Your task to perform on an android device: When is my next appointment? Image 0: 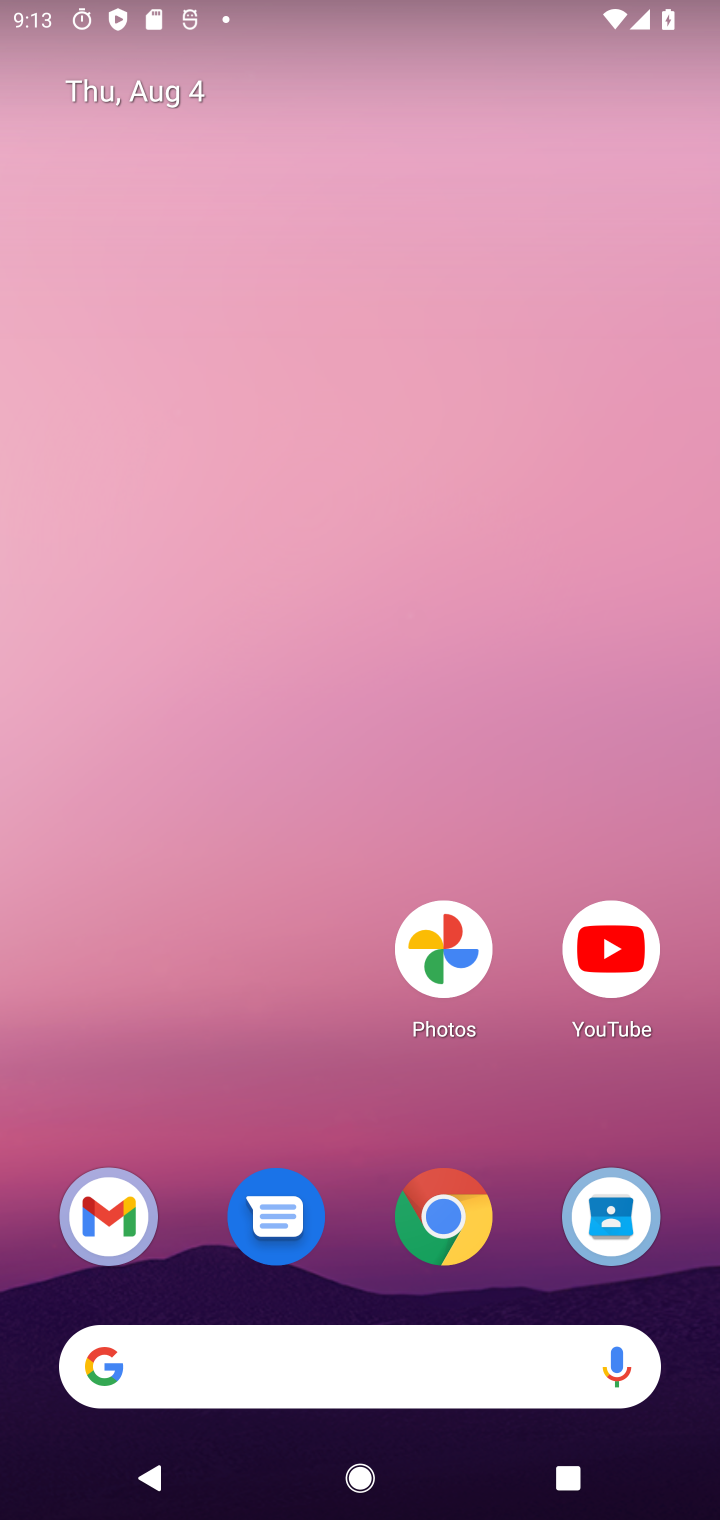
Step 0: drag from (341, 910) to (341, 288)
Your task to perform on an android device: When is my next appointment? Image 1: 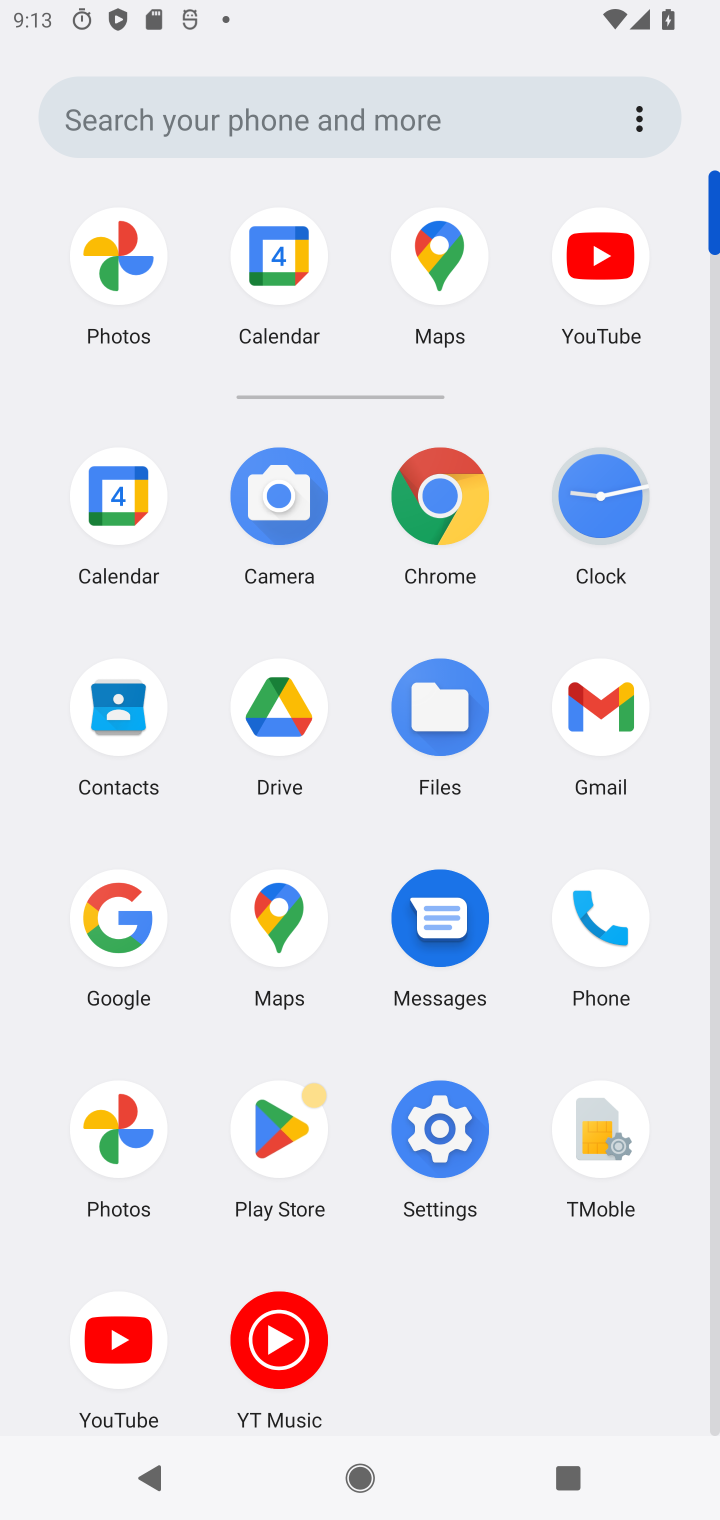
Step 1: click (123, 505)
Your task to perform on an android device: When is my next appointment? Image 2: 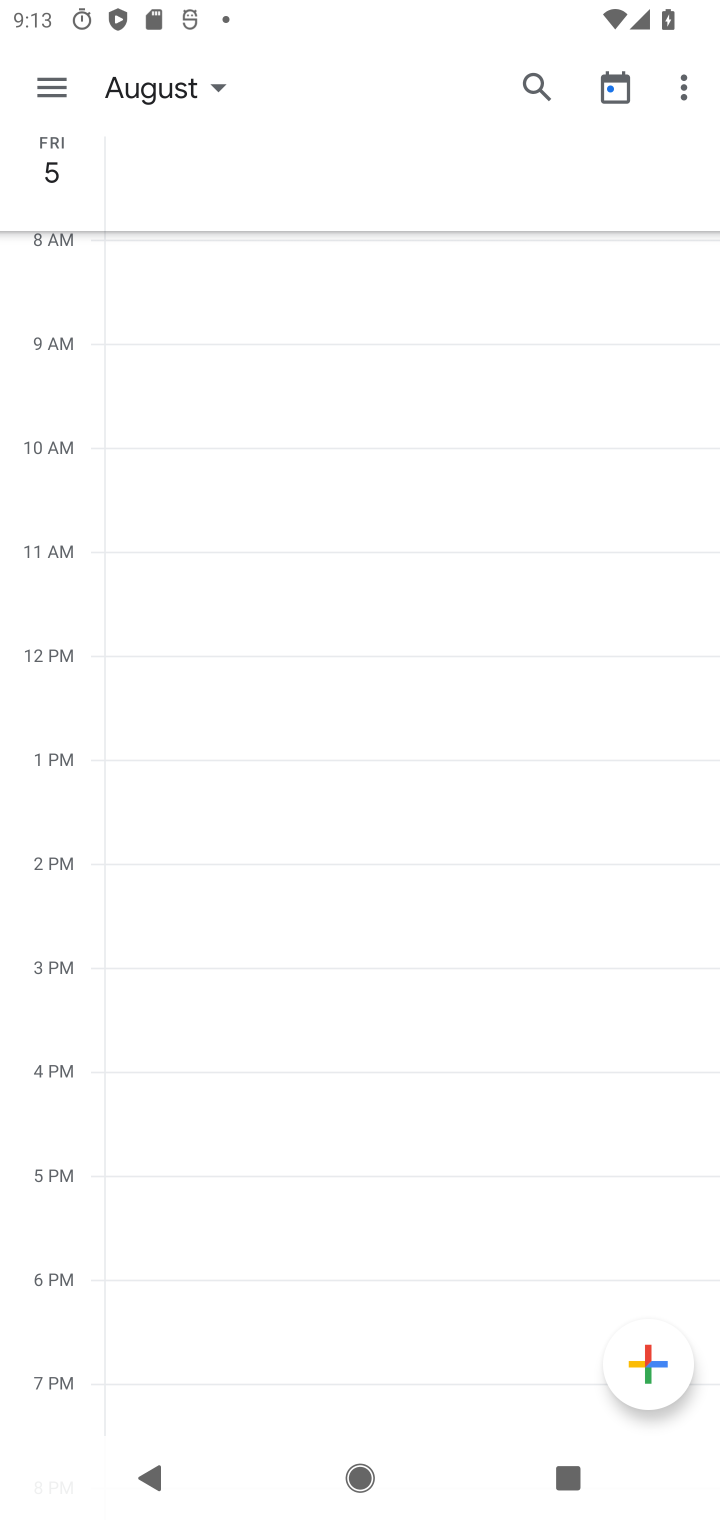
Step 2: click (53, 90)
Your task to perform on an android device: When is my next appointment? Image 3: 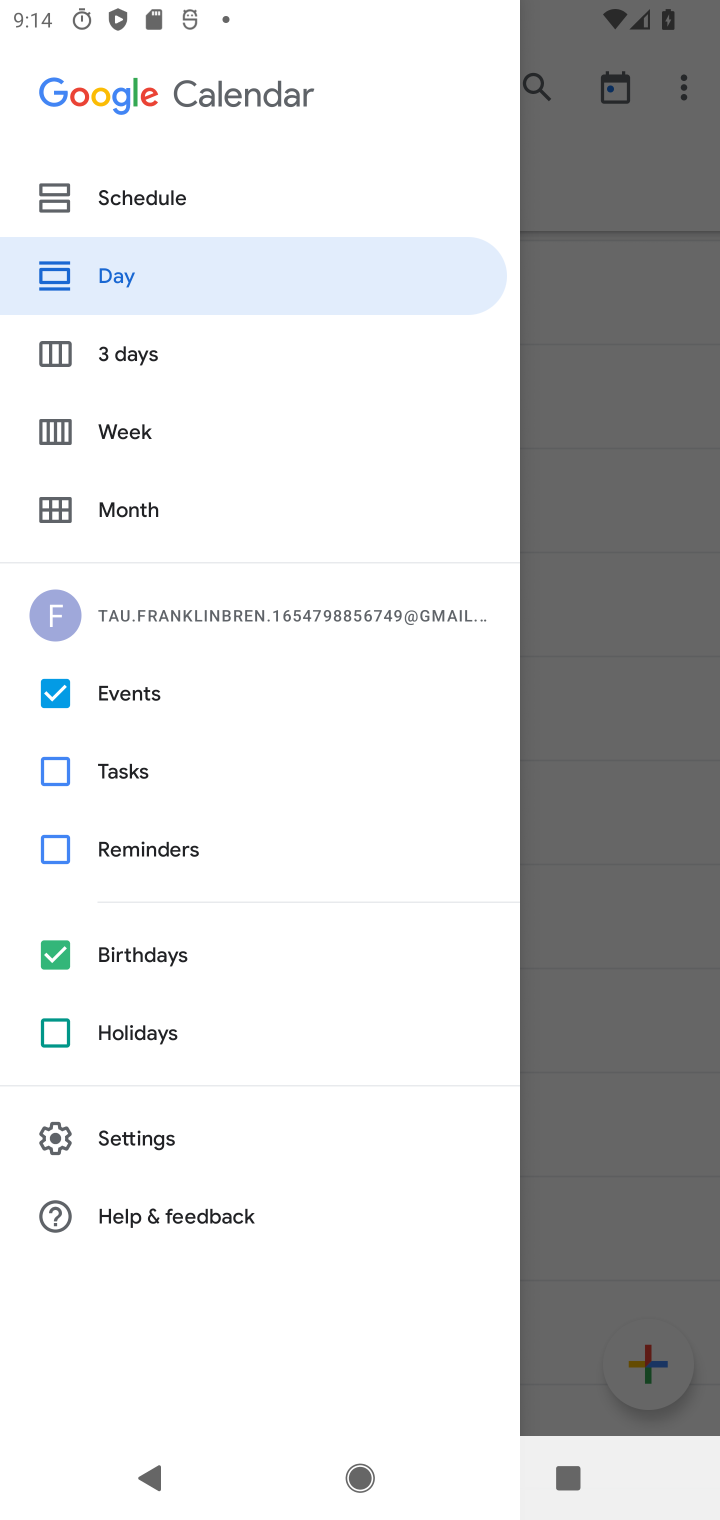
Step 3: click (210, 202)
Your task to perform on an android device: When is my next appointment? Image 4: 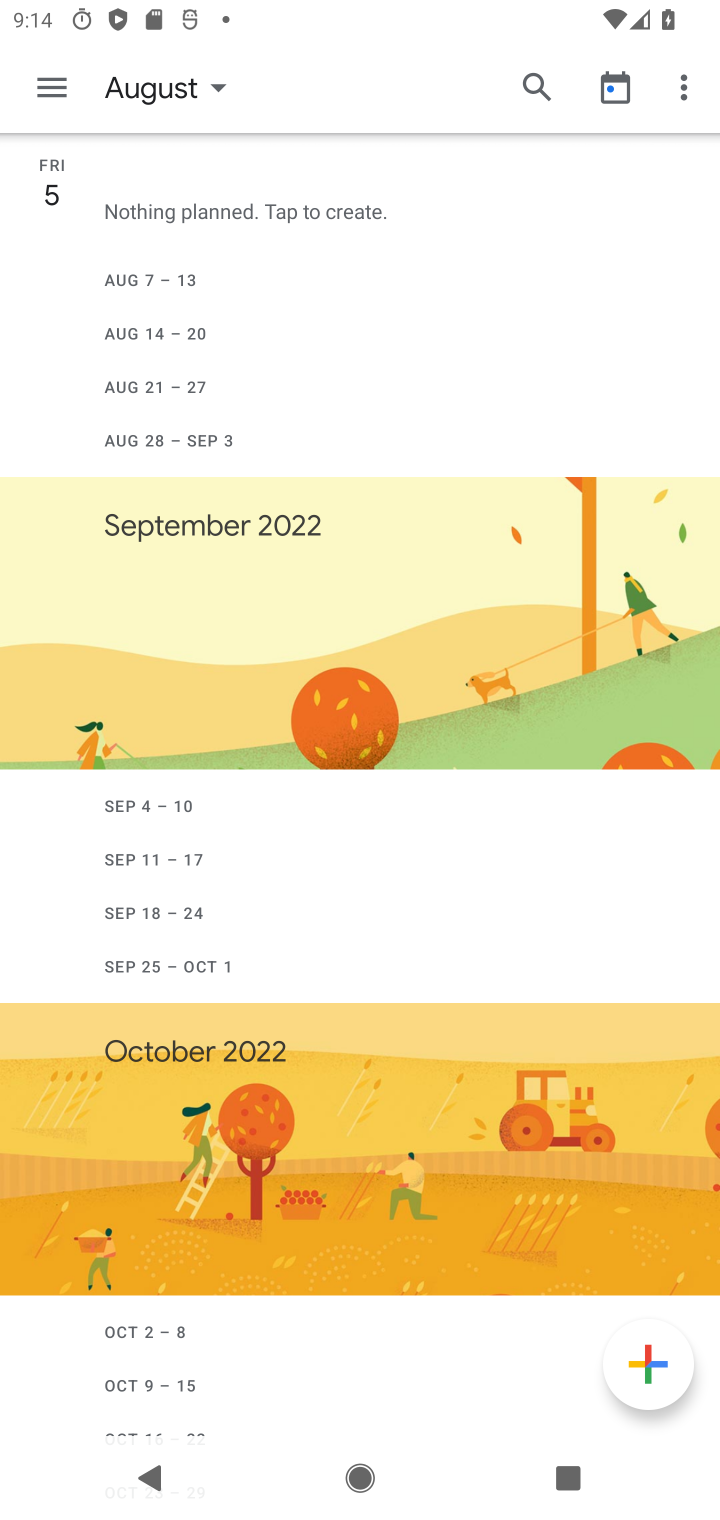
Step 4: click (220, 90)
Your task to perform on an android device: When is my next appointment? Image 5: 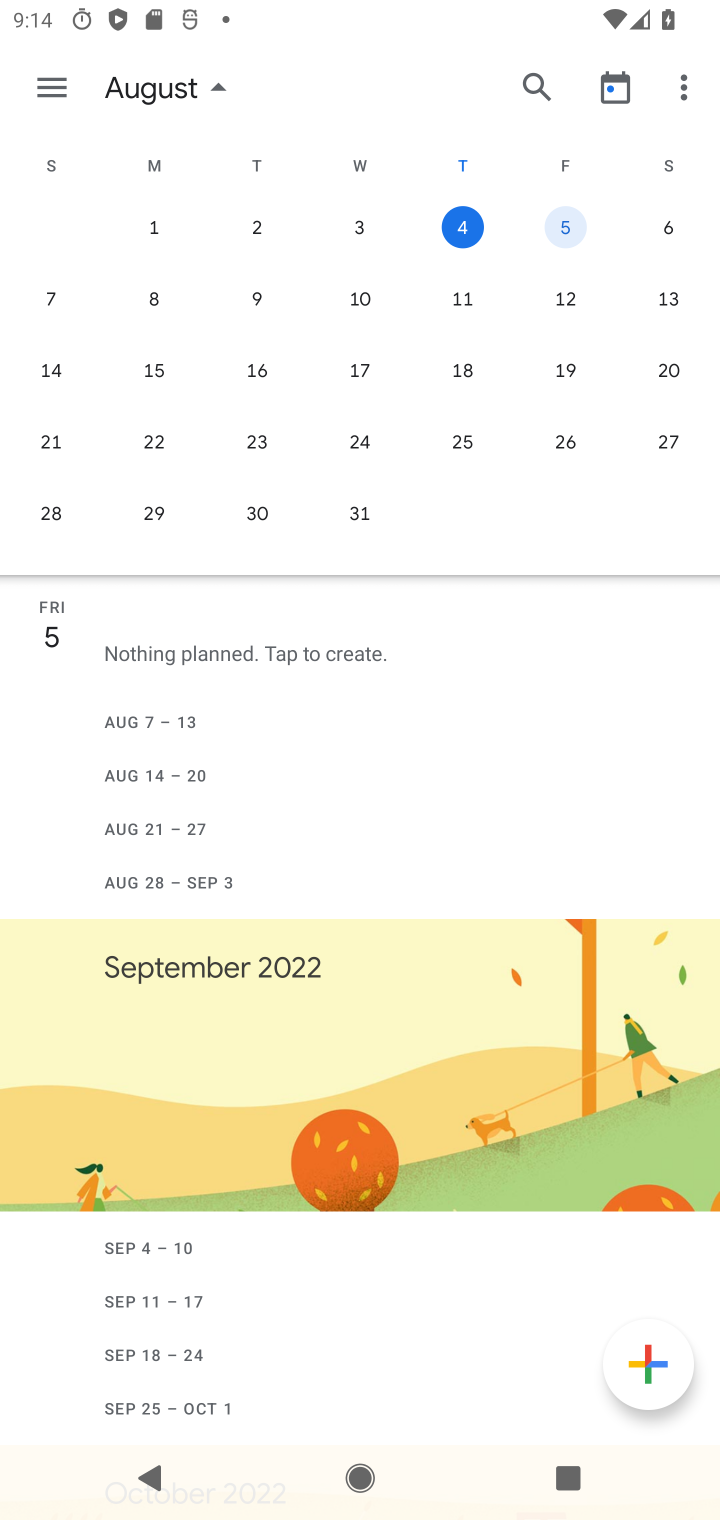
Step 5: click (564, 221)
Your task to perform on an android device: When is my next appointment? Image 6: 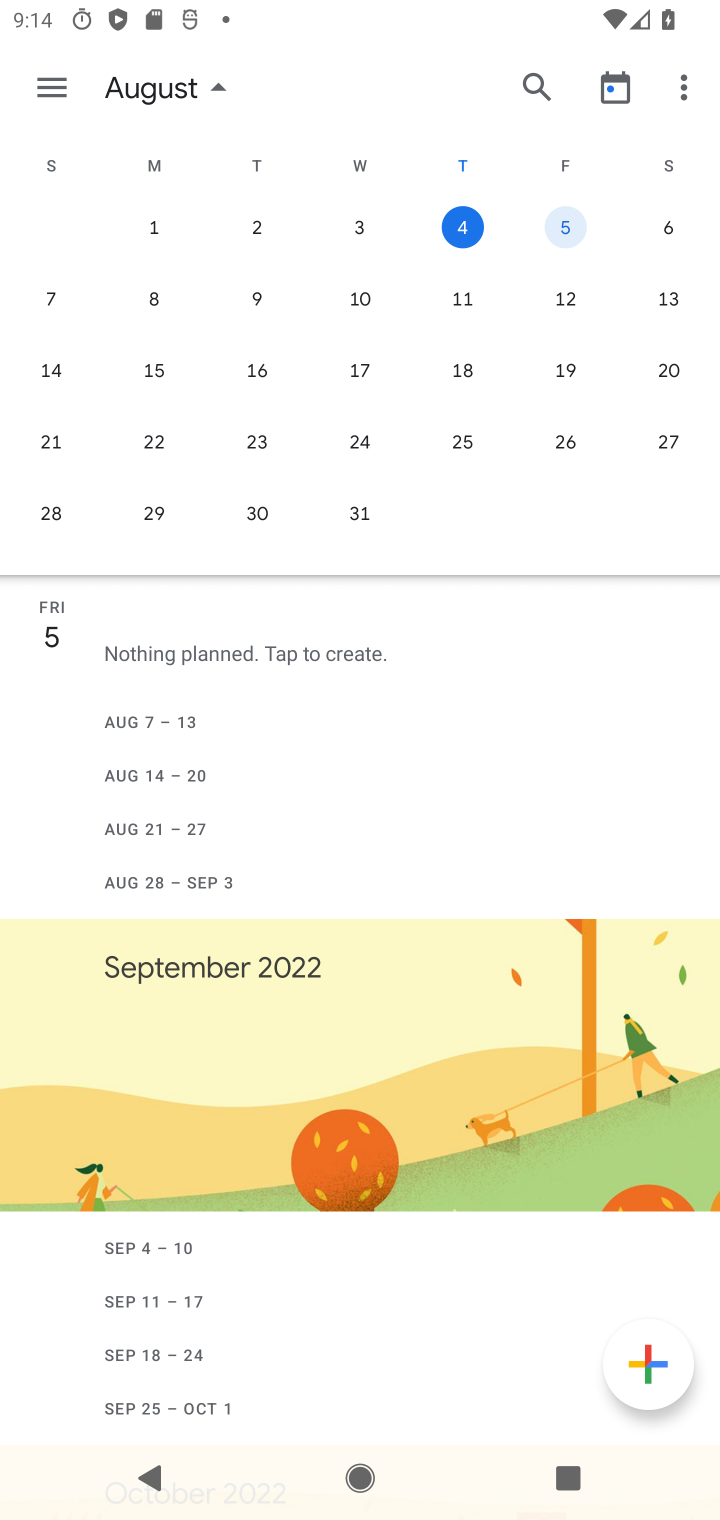
Step 6: click (575, 215)
Your task to perform on an android device: When is my next appointment? Image 7: 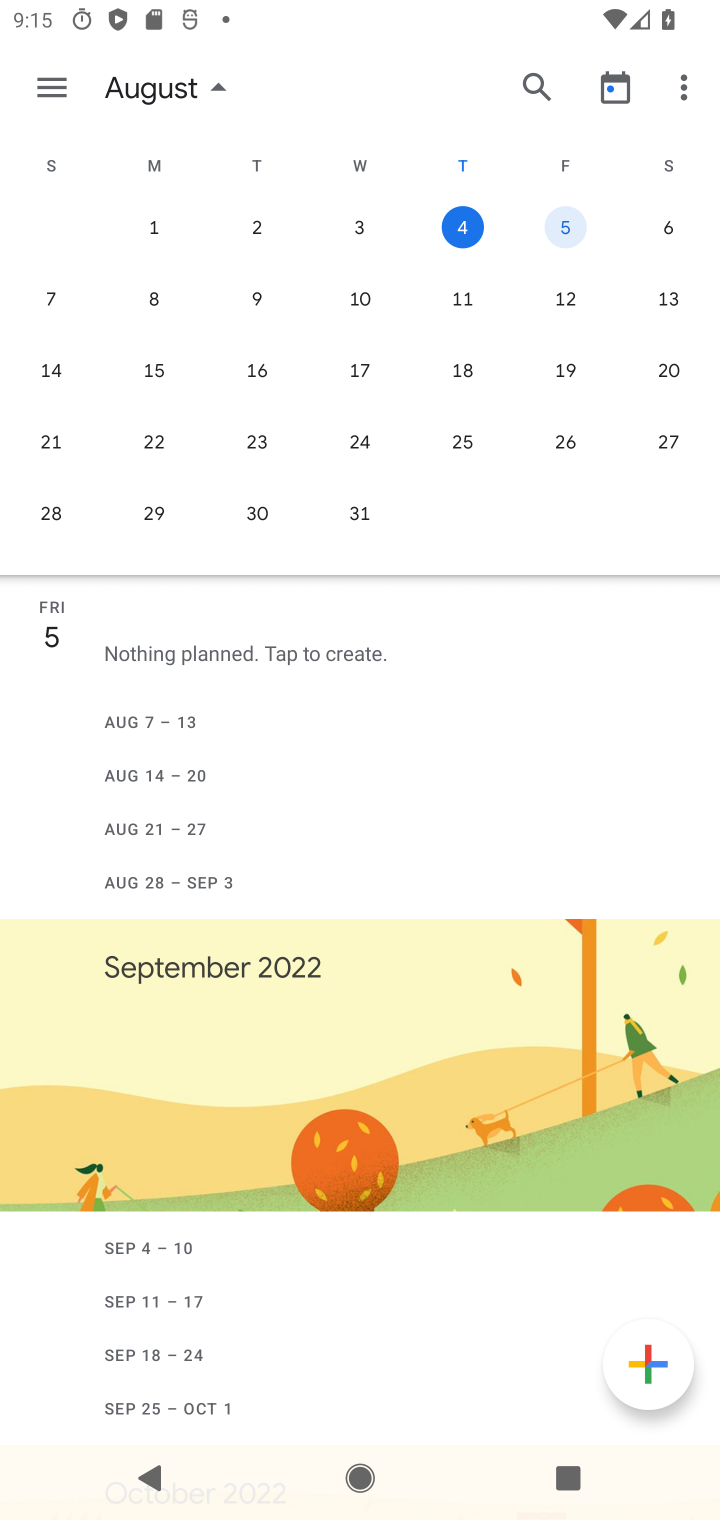
Step 7: task complete